Your task to perform on an android device: turn on javascript in the chrome app Image 0: 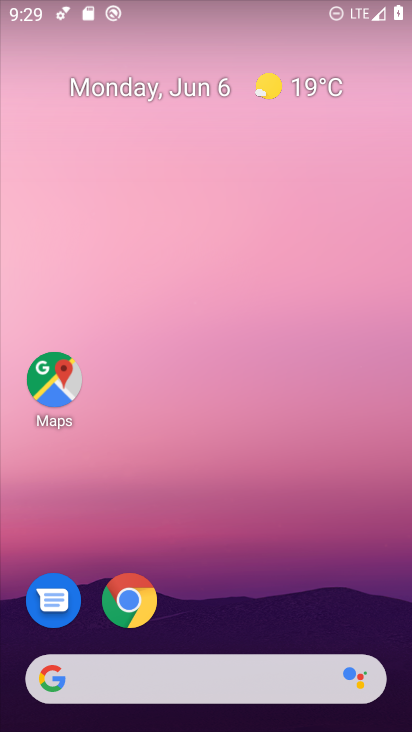
Step 0: click (251, 603)
Your task to perform on an android device: turn on javascript in the chrome app Image 1: 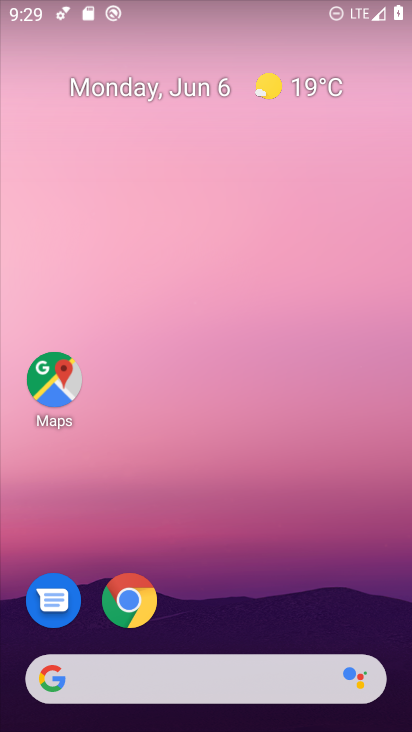
Step 1: click (138, 594)
Your task to perform on an android device: turn on javascript in the chrome app Image 2: 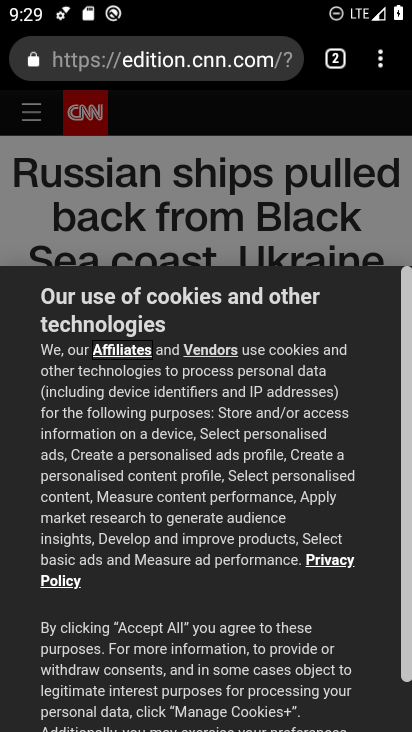
Step 2: click (382, 69)
Your task to perform on an android device: turn on javascript in the chrome app Image 3: 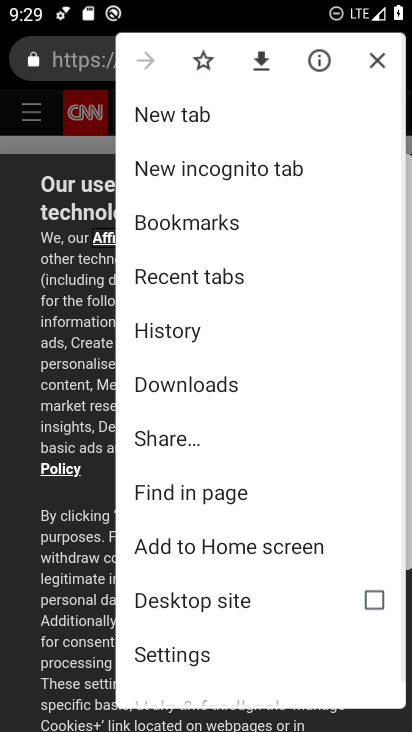
Step 3: click (180, 656)
Your task to perform on an android device: turn on javascript in the chrome app Image 4: 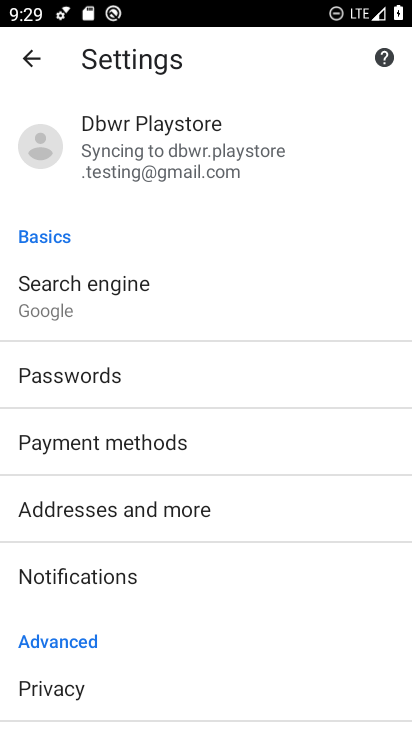
Step 4: drag from (199, 597) to (199, 243)
Your task to perform on an android device: turn on javascript in the chrome app Image 5: 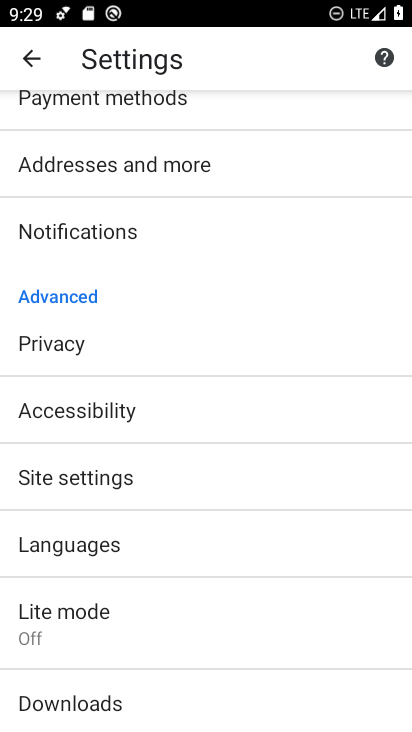
Step 5: click (126, 465)
Your task to perform on an android device: turn on javascript in the chrome app Image 6: 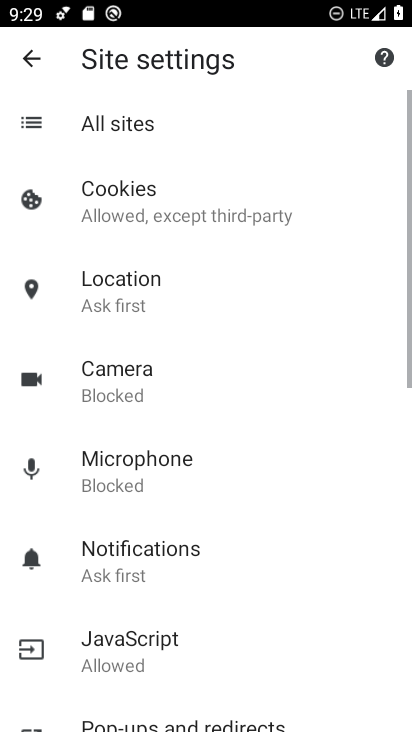
Step 6: click (144, 670)
Your task to perform on an android device: turn on javascript in the chrome app Image 7: 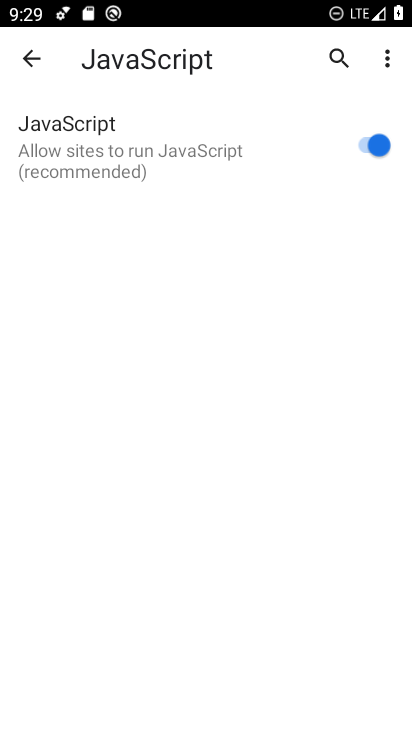
Step 7: task complete